Your task to perform on an android device: uninstall "Etsy: Buy & Sell Unique Items" Image 0: 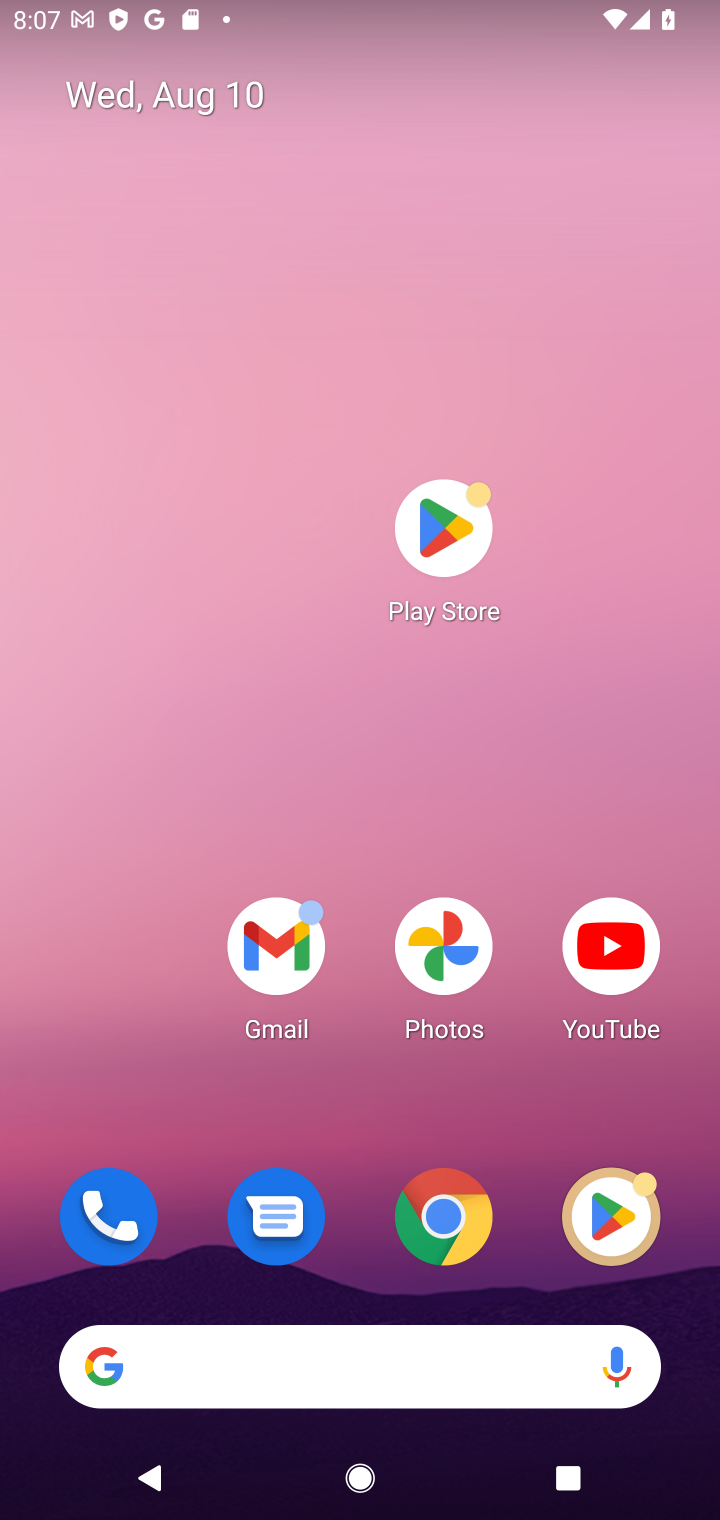
Step 0: click (430, 519)
Your task to perform on an android device: uninstall "Etsy: Buy & Sell Unique Items" Image 1: 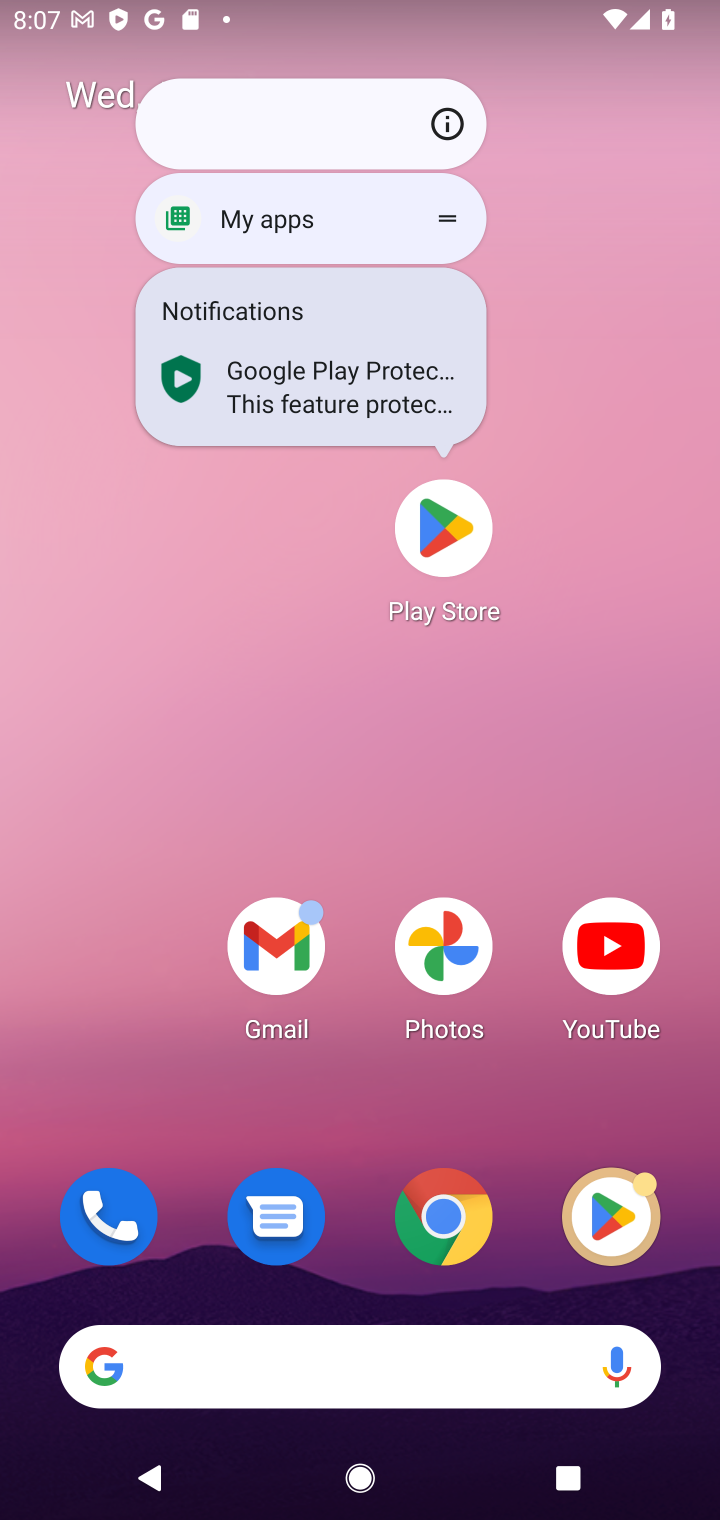
Step 1: click (430, 518)
Your task to perform on an android device: uninstall "Etsy: Buy & Sell Unique Items" Image 2: 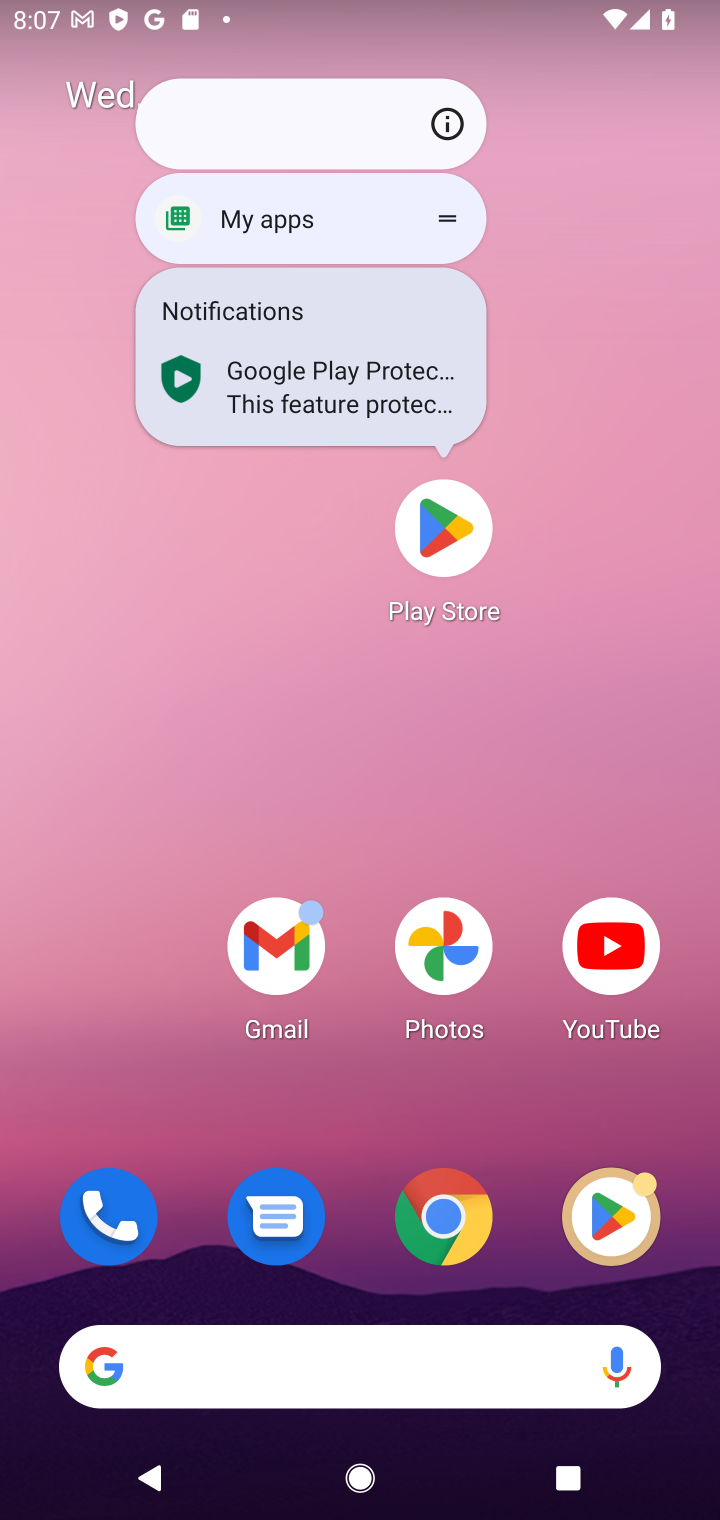
Step 2: click (447, 537)
Your task to perform on an android device: uninstall "Etsy: Buy & Sell Unique Items" Image 3: 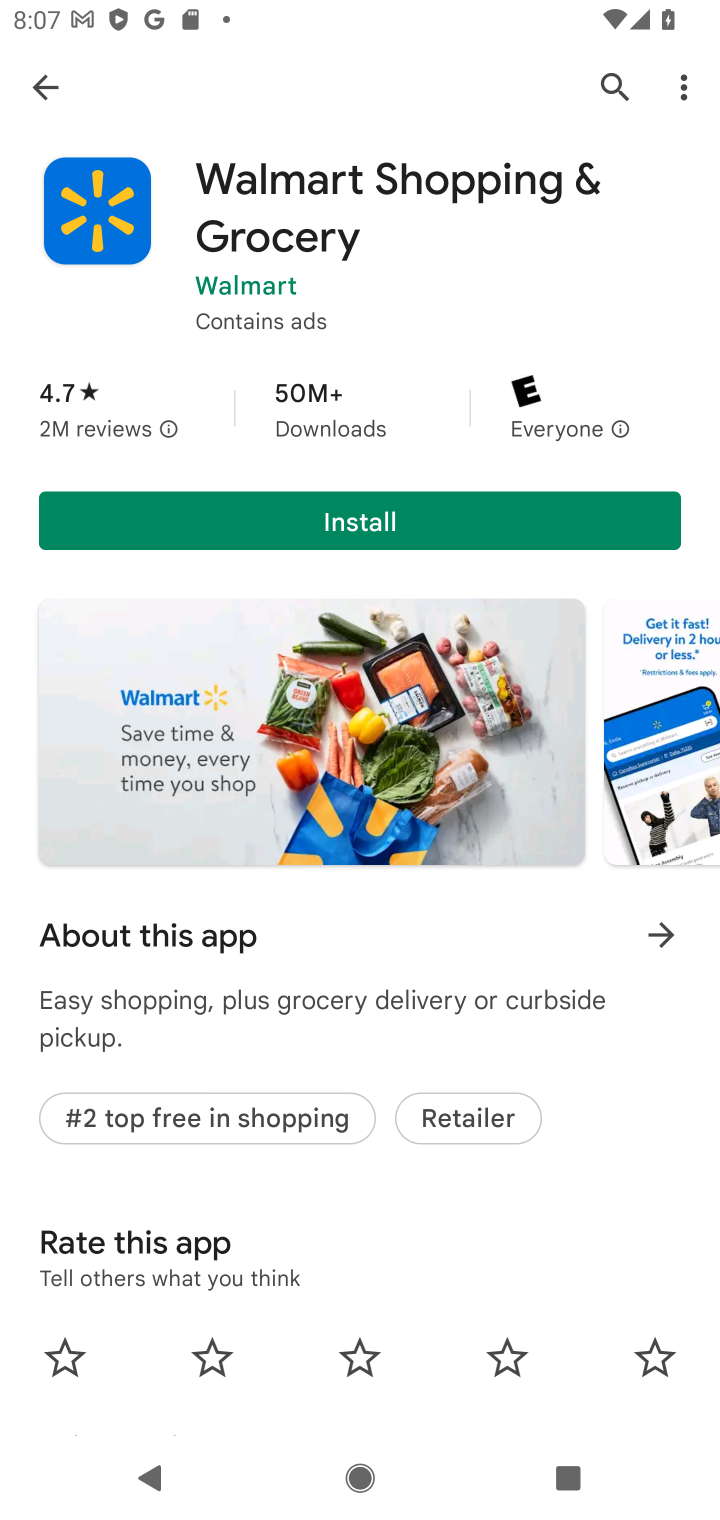
Step 3: click (610, 85)
Your task to perform on an android device: uninstall "Etsy: Buy & Sell Unique Items" Image 4: 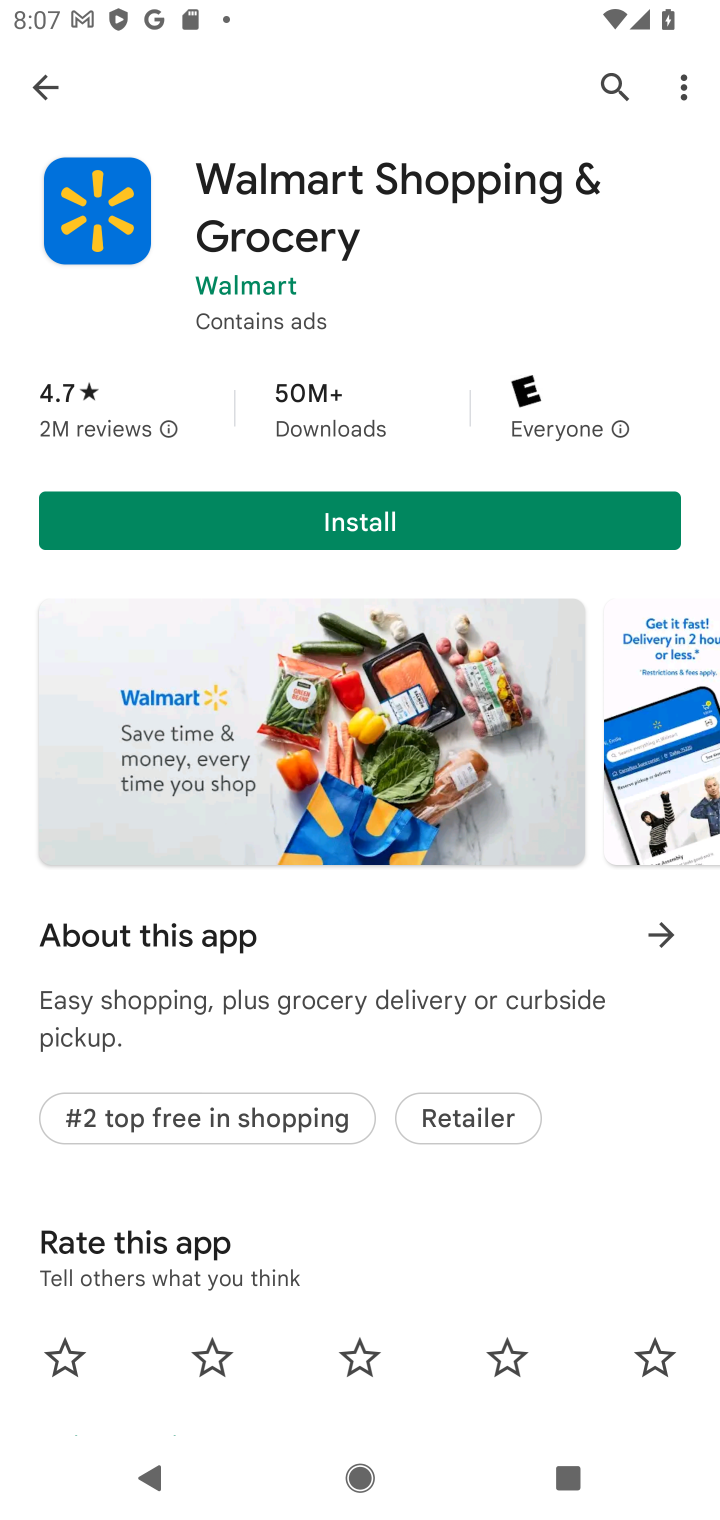
Step 4: click (607, 72)
Your task to perform on an android device: uninstall "Etsy: Buy & Sell Unique Items" Image 5: 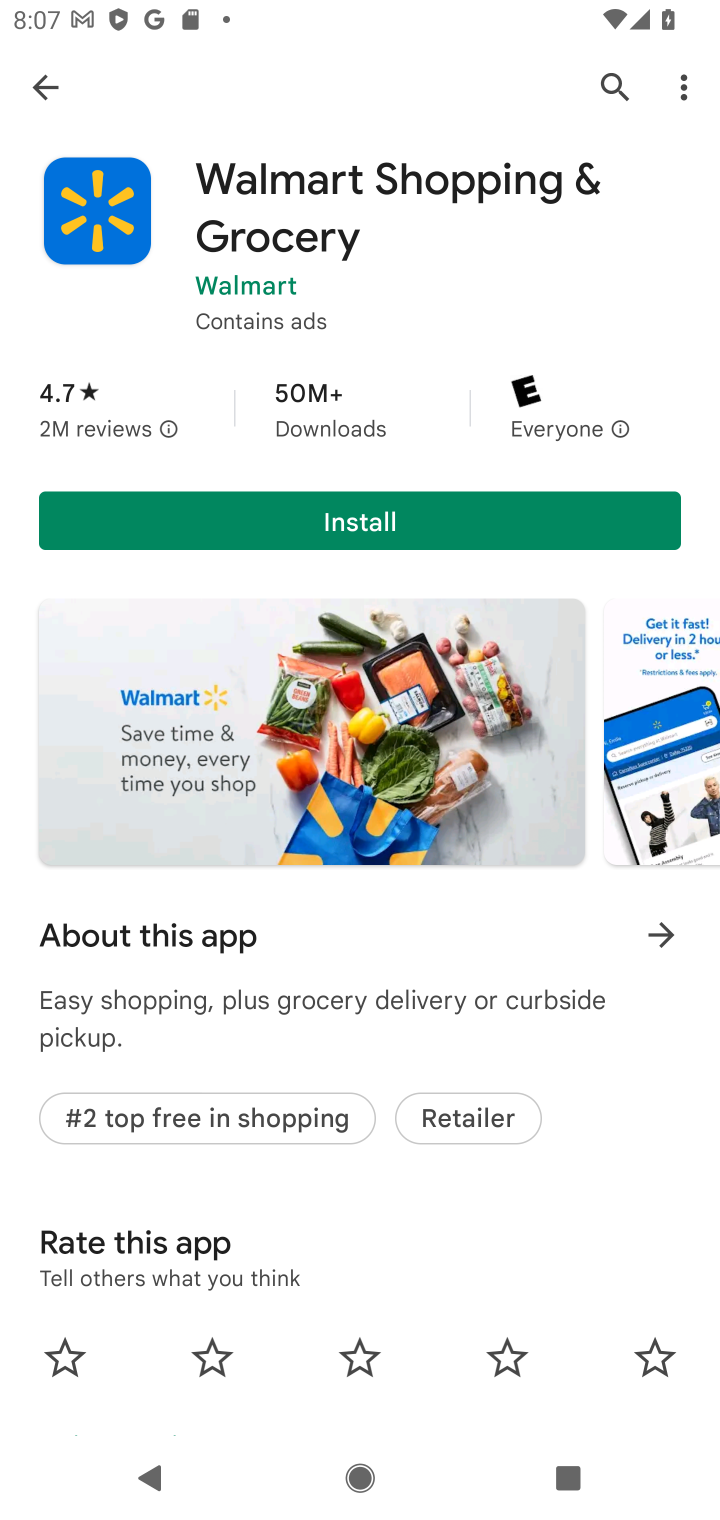
Step 5: click (605, 91)
Your task to perform on an android device: uninstall "Etsy: Buy & Sell Unique Items" Image 6: 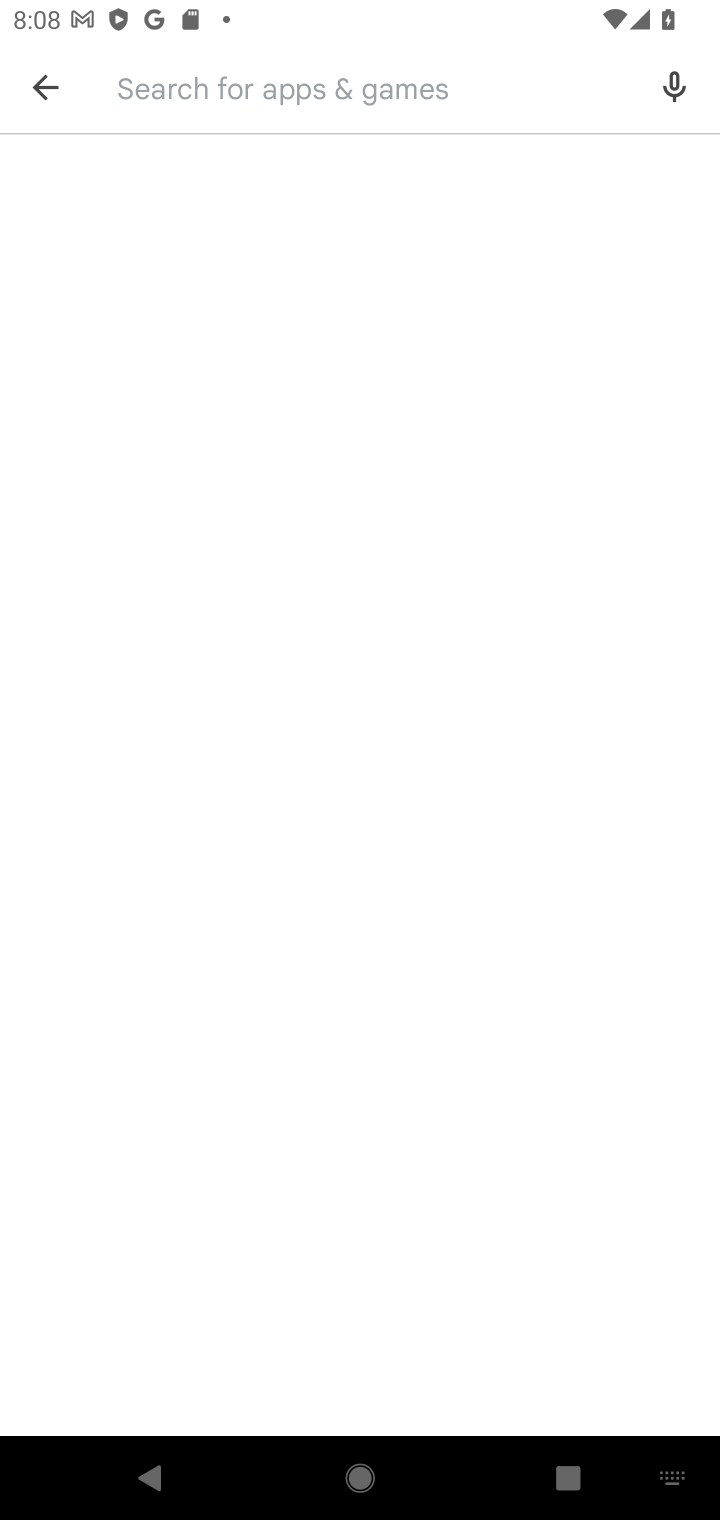
Step 6: type "Etsy: Buy & Sell Unique Items"
Your task to perform on an android device: uninstall "Etsy: Buy & Sell Unique Items" Image 7: 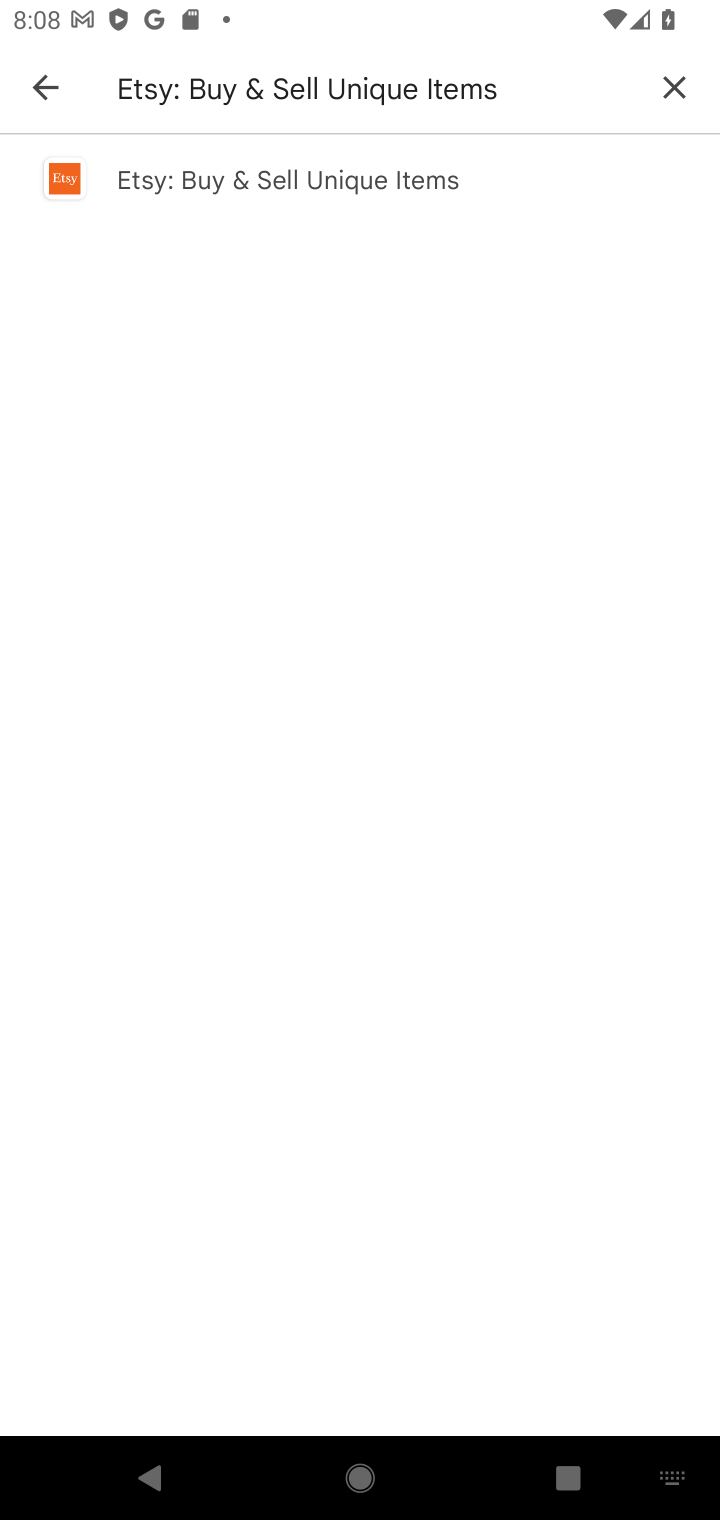
Step 7: click (291, 175)
Your task to perform on an android device: uninstall "Etsy: Buy & Sell Unique Items" Image 8: 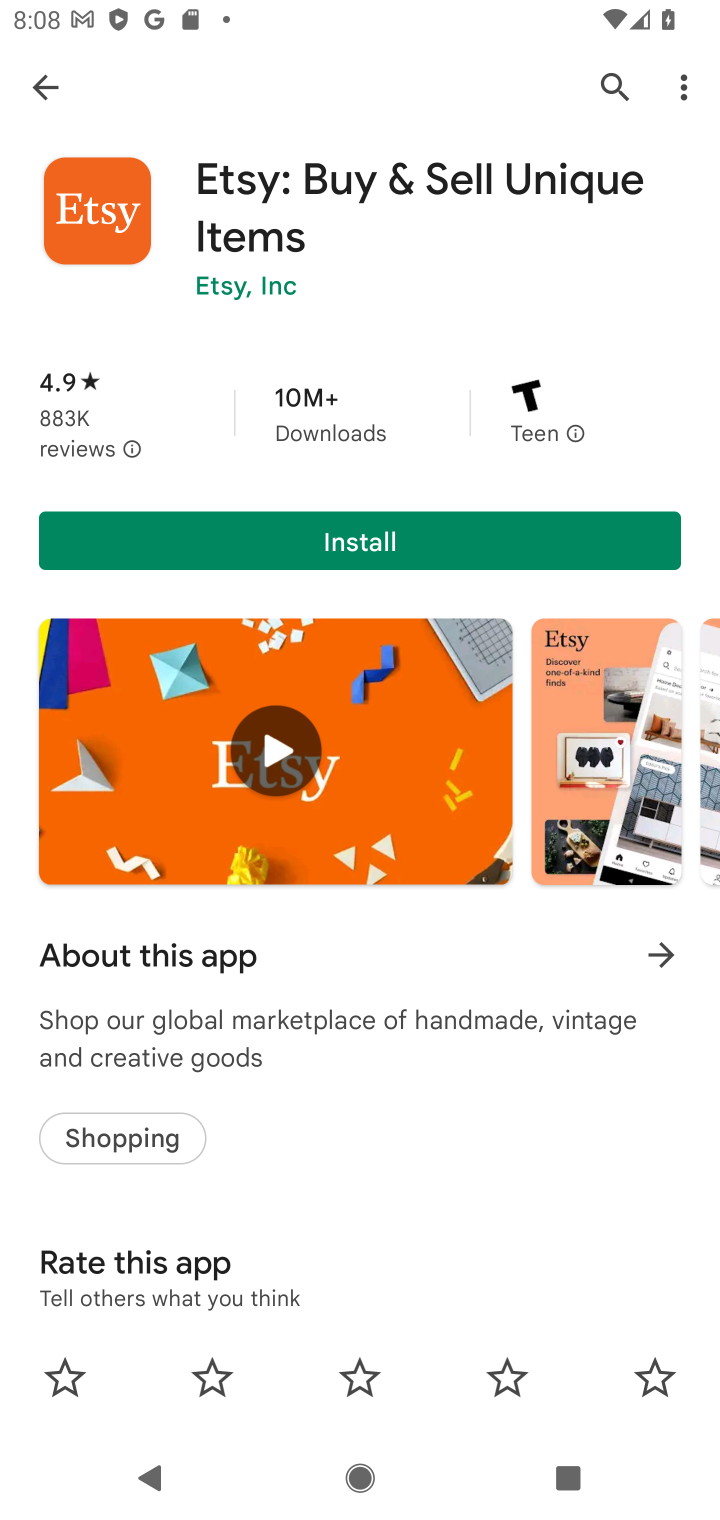
Step 8: task complete